Your task to perform on an android device: turn on bluetooth scan Image 0: 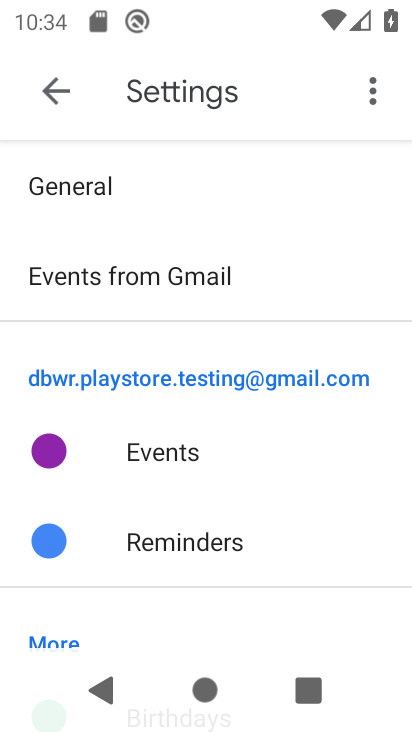
Step 0: drag from (201, 491) to (262, 186)
Your task to perform on an android device: turn on bluetooth scan Image 1: 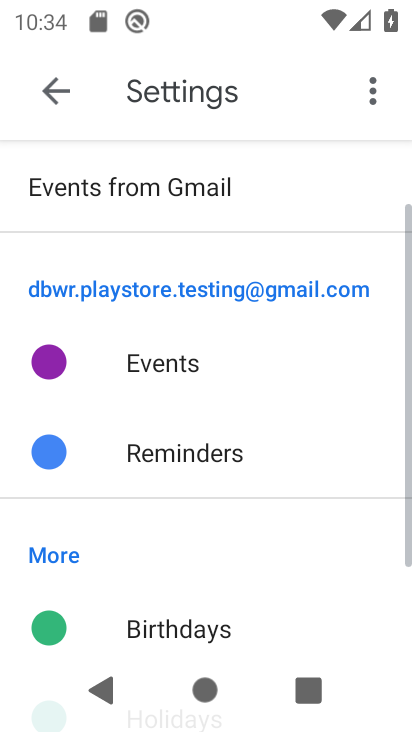
Step 1: press home button
Your task to perform on an android device: turn on bluetooth scan Image 2: 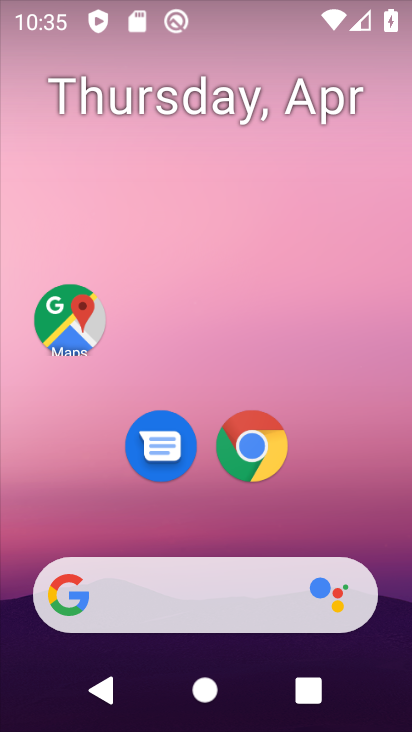
Step 2: drag from (199, 523) to (276, 99)
Your task to perform on an android device: turn on bluetooth scan Image 3: 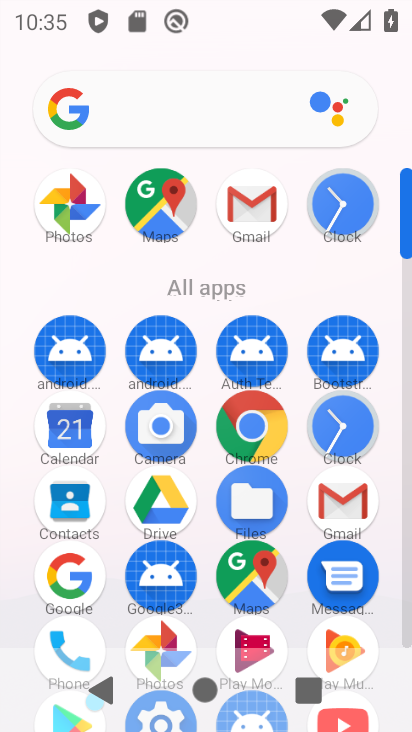
Step 3: drag from (208, 598) to (226, 152)
Your task to perform on an android device: turn on bluetooth scan Image 4: 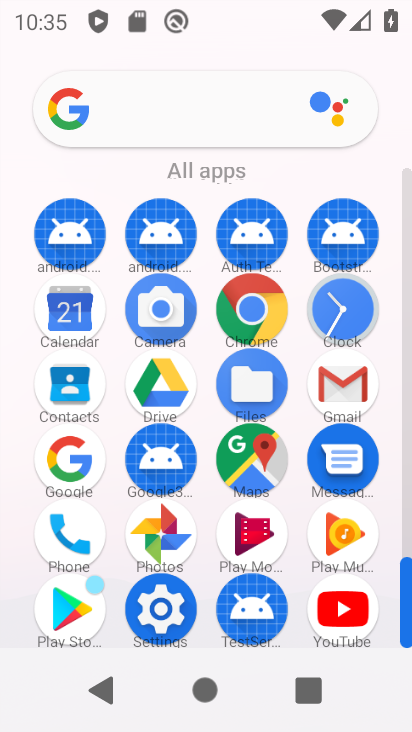
Step 4: click (159, 625)
Your task to perform on an android device: turn on bluetooth scan Image 5: 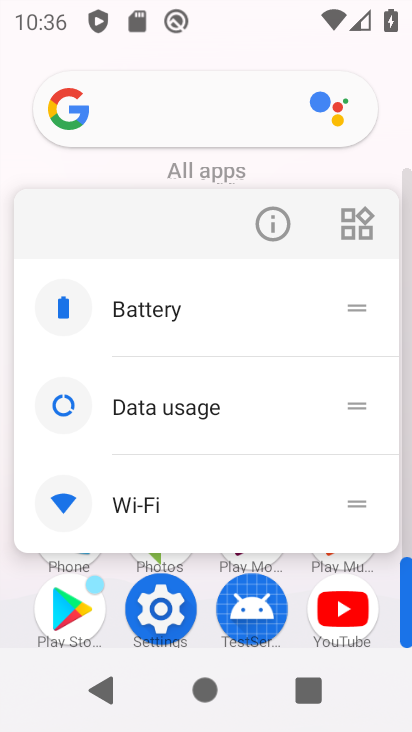
Step 5: click (299, 218)
Your task to perform on an android device: turn on bluetooth scan Image 6: 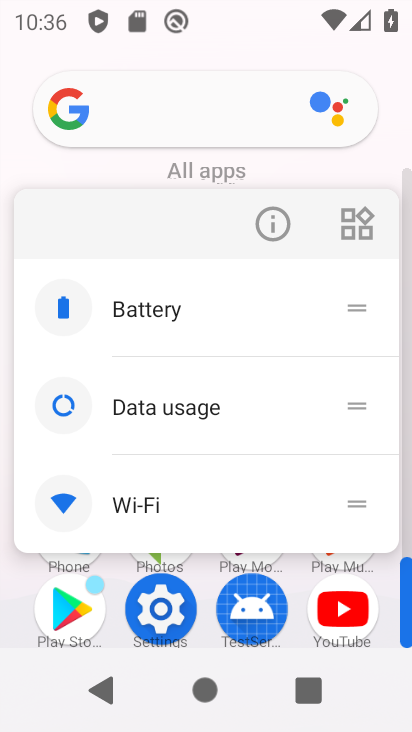
Step 6: click (266, 226)
Your task to perform on an android device: turn on bluetooth scan Image 7: 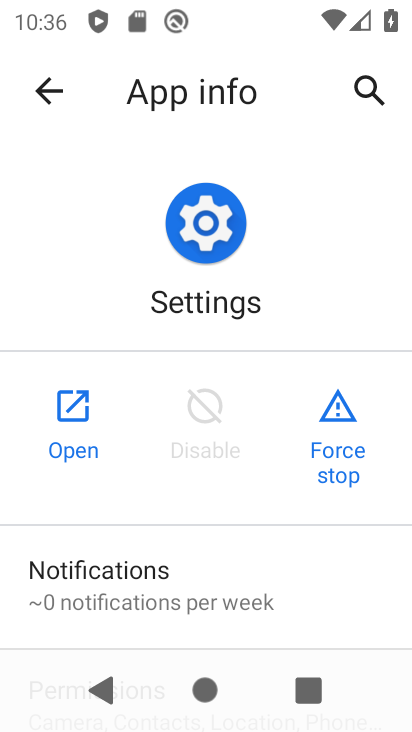
Step 7: click (72, 404)
Your task to perform on an android device: turn on bluetooth scan Image 8: 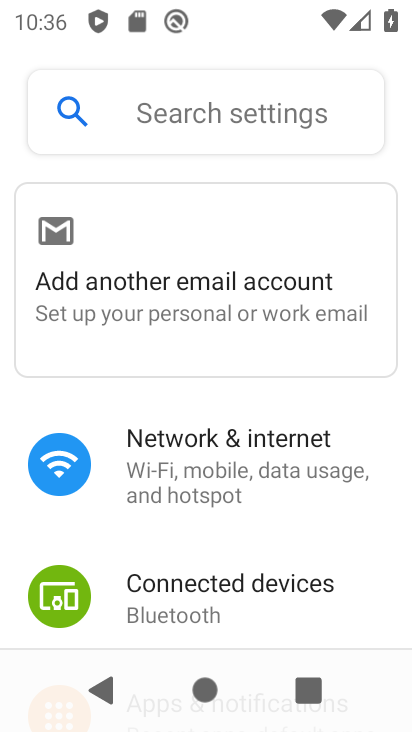
Step 8: drag from (229, 511) to (289, 77)
Your task to perform on an android device: turn on bluetooth scan Image 9: 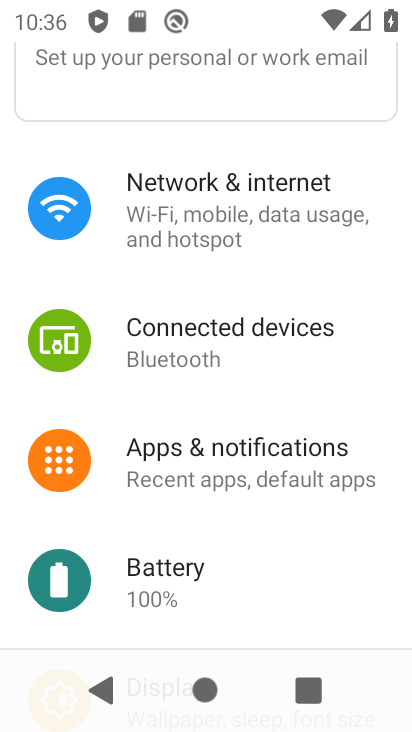
Step 9: drag from (225, 116) to (233, 597)
Your task to perform on an android device: turn on bluetooth scan Image 10: 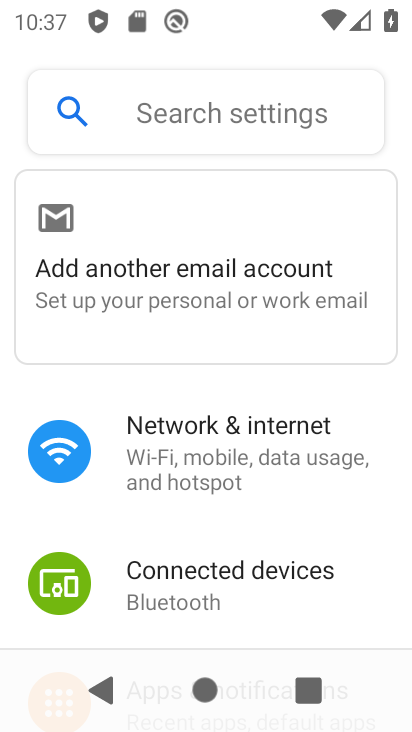
Step 10: click (155, 97)
Your task to perform on an android device: turn on bluetooth scan Image 11: 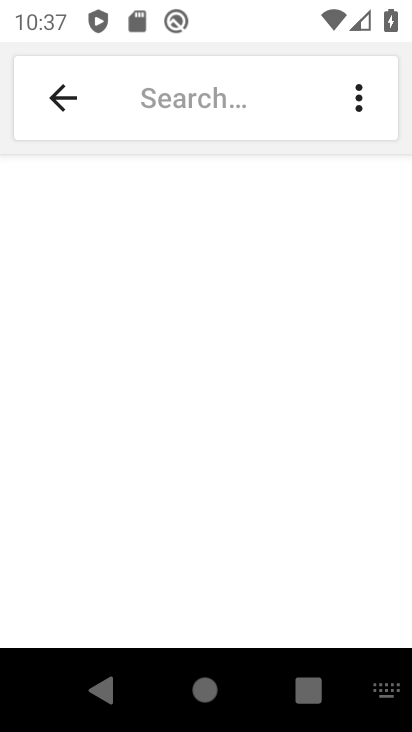
Step 11: type "bluetooth"
Your task to perform on an android device: turn on bluetooth scan Image 12: 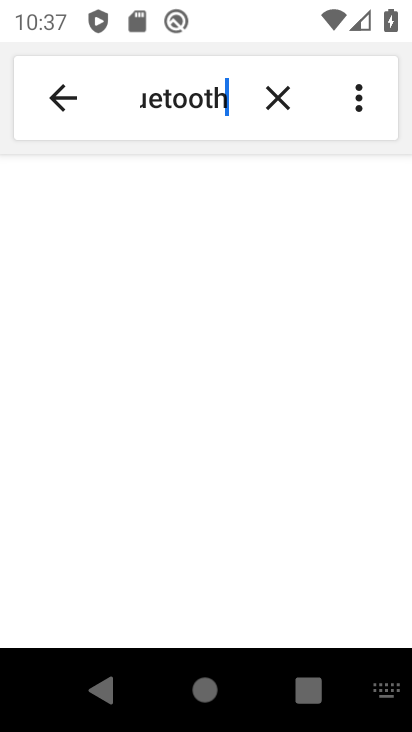
Step 12: click (263, 93)
Your task to perform on an android device: turn on bluetooth scan Image 13: 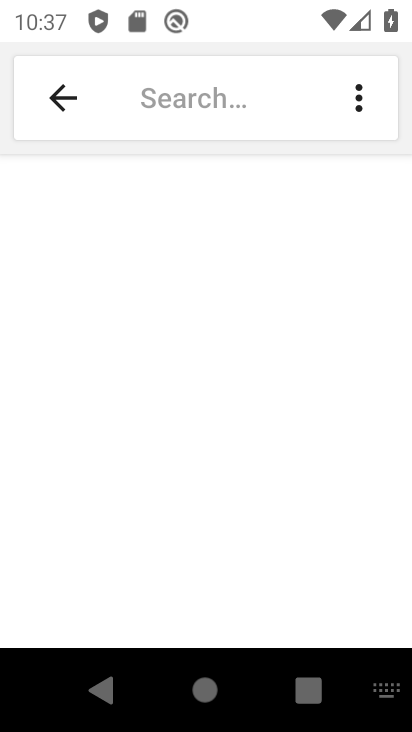
Step 13: click (234, 213)
Your task to perform on an android device: turn on bluetooth scan Image 14: 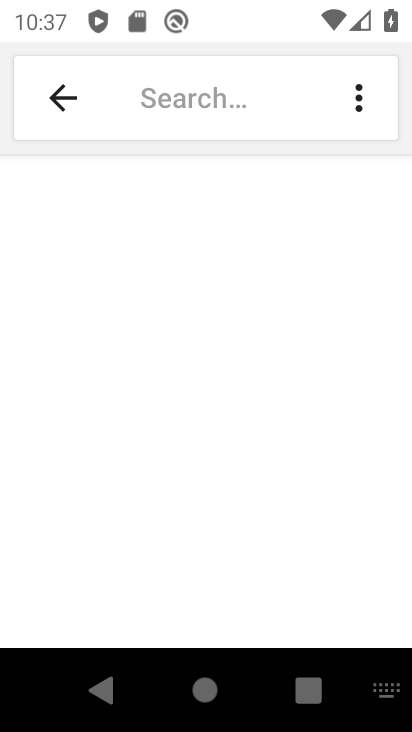
Step 14: type "bluetooth"
Your task to perform on an android device: turn on bluetooth scan Image 15: 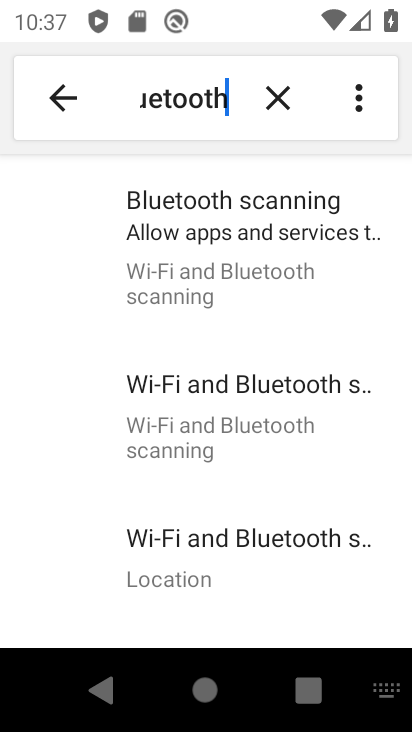
Step 15: click (211, 271)
Your task to perform on an android device: turn on bluetooth scan Image 16: 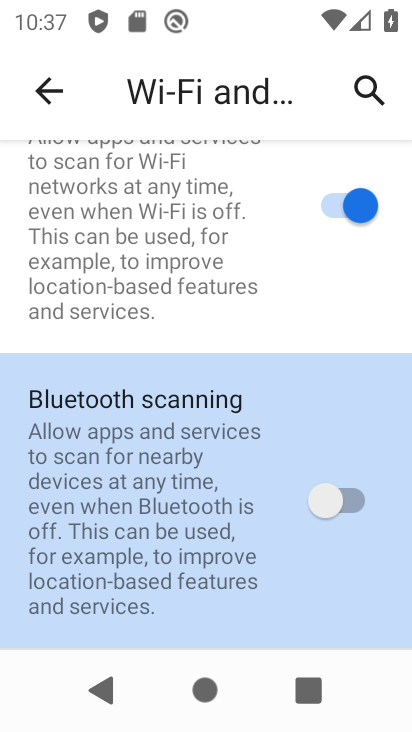
Step 16: click (334, 504)
Your task to perform on an android device: turn on bluetooth scan Image 17: 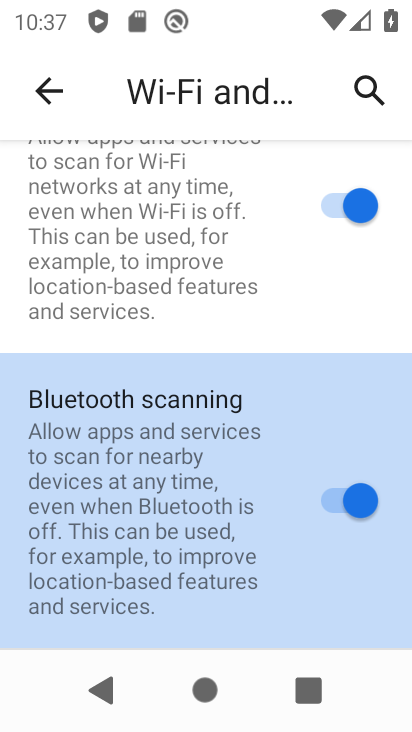
Step 17: task complete